Your task to perform on an android device: star an email in the gmail app Image 0: 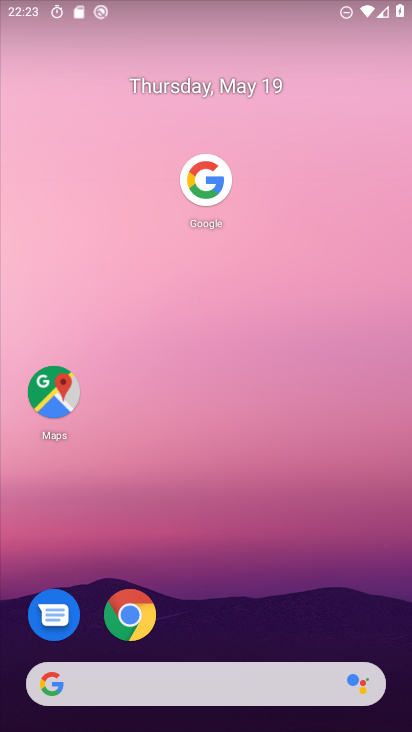
Step 0: drag from (220, 582) to (227, 112)
Your task to perform on an android device: star an email in the gmail app Image 1: 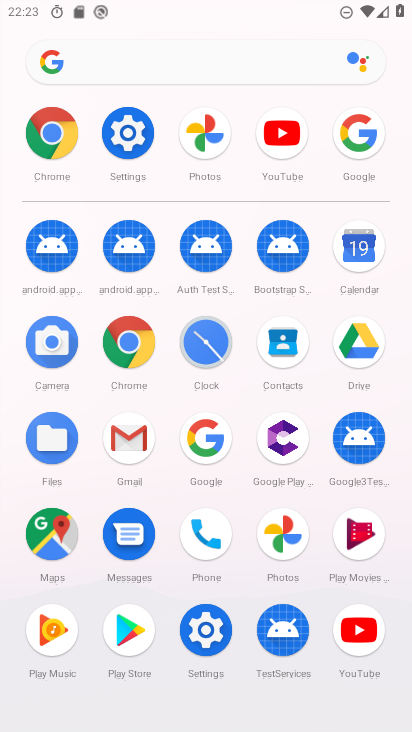
Step 1: click (130, 438)
Your task to perform on an android device: star an email in the gmail app Image 2: 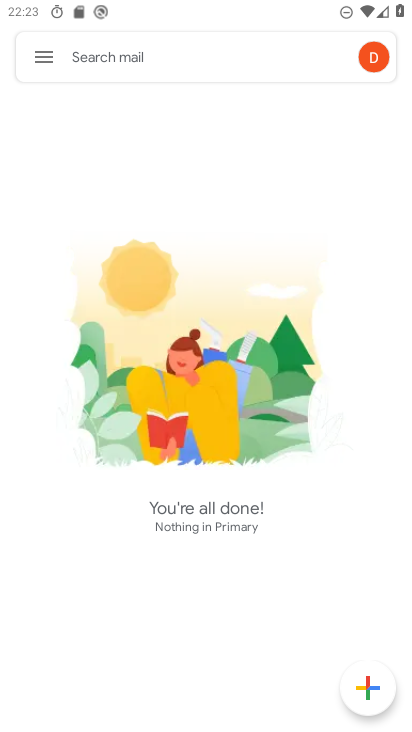
Step 2: click (45, 59)
Your task to perform on an android device: star an email in the gmail app Image 3: 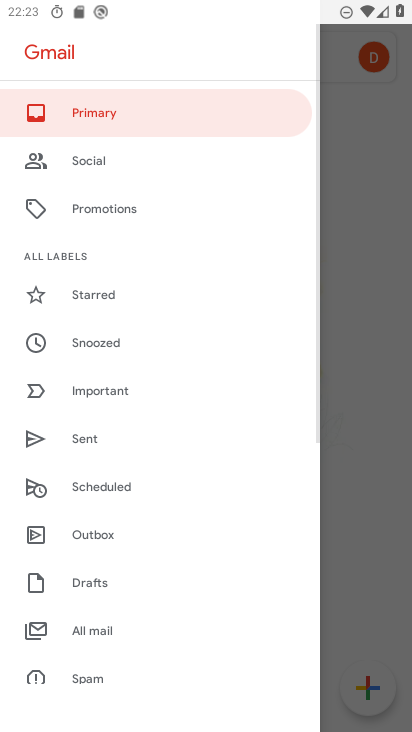
Step 3: drag from (202, 554) to (221, 212)
Your task to perform on an android device: star an email in the gmail app Image 4: 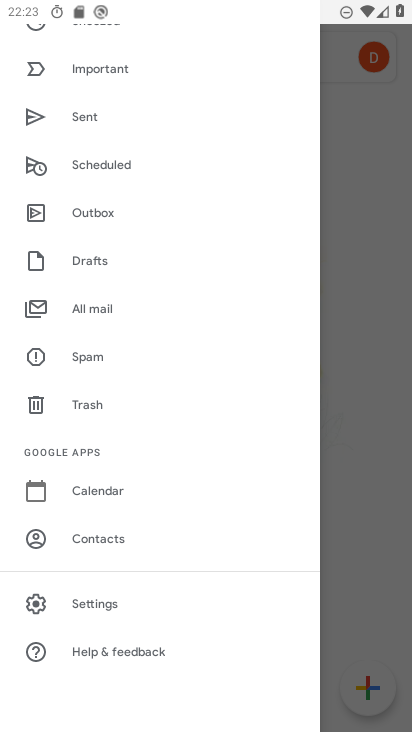
Step 4: click (95, 316)
Your task to perform on an android device: star an email in the gmail app Image 5: 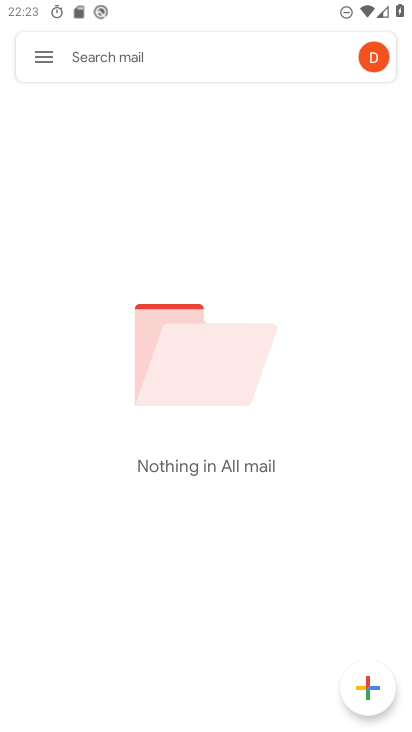
Step 5: task complete